Your task to perform on an android device: turn off sleep mode Image 0: 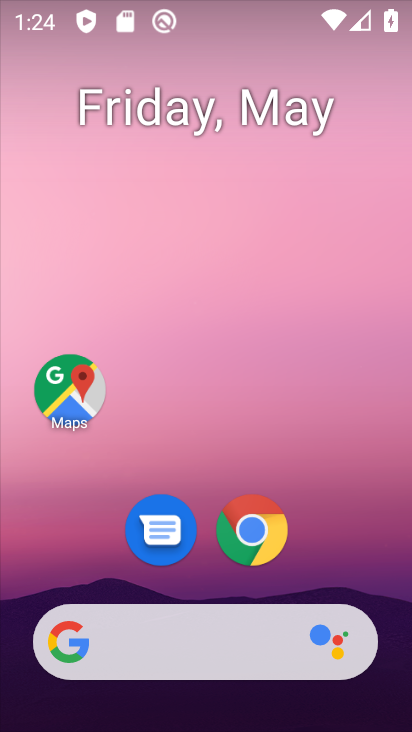
Step 0: drag from (333, 565) to (227, 11)
Your task to perform on an android device: turn off sleep mode Image 1: 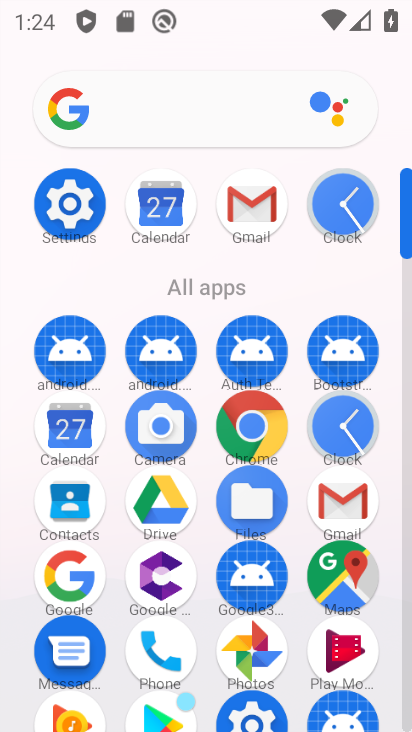
Step 1: click (69, 204)
Your task to perform on an android device: turn off sleep mode Image 2: 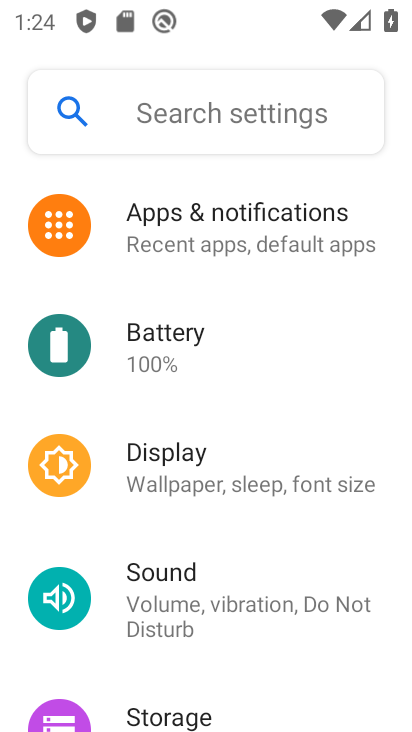
Step 2: click (268, 465)
Your task to perform on an android device: turn off sleep mode Image 3: 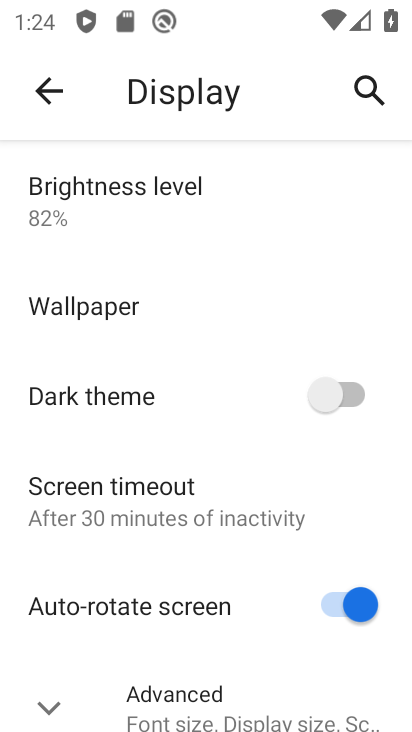
Step 3: click (184, 681)
Your task to perform on an android device: turn off sleep mode Image 4: 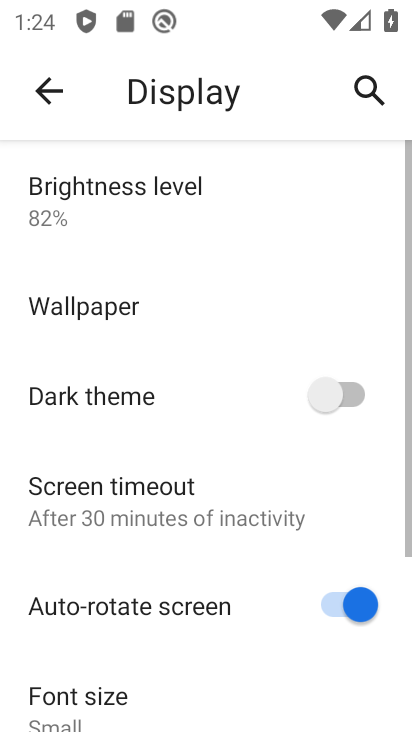
Step 4: task complete